Your task to perform on an android device: Google the capital of the United States Image 0: 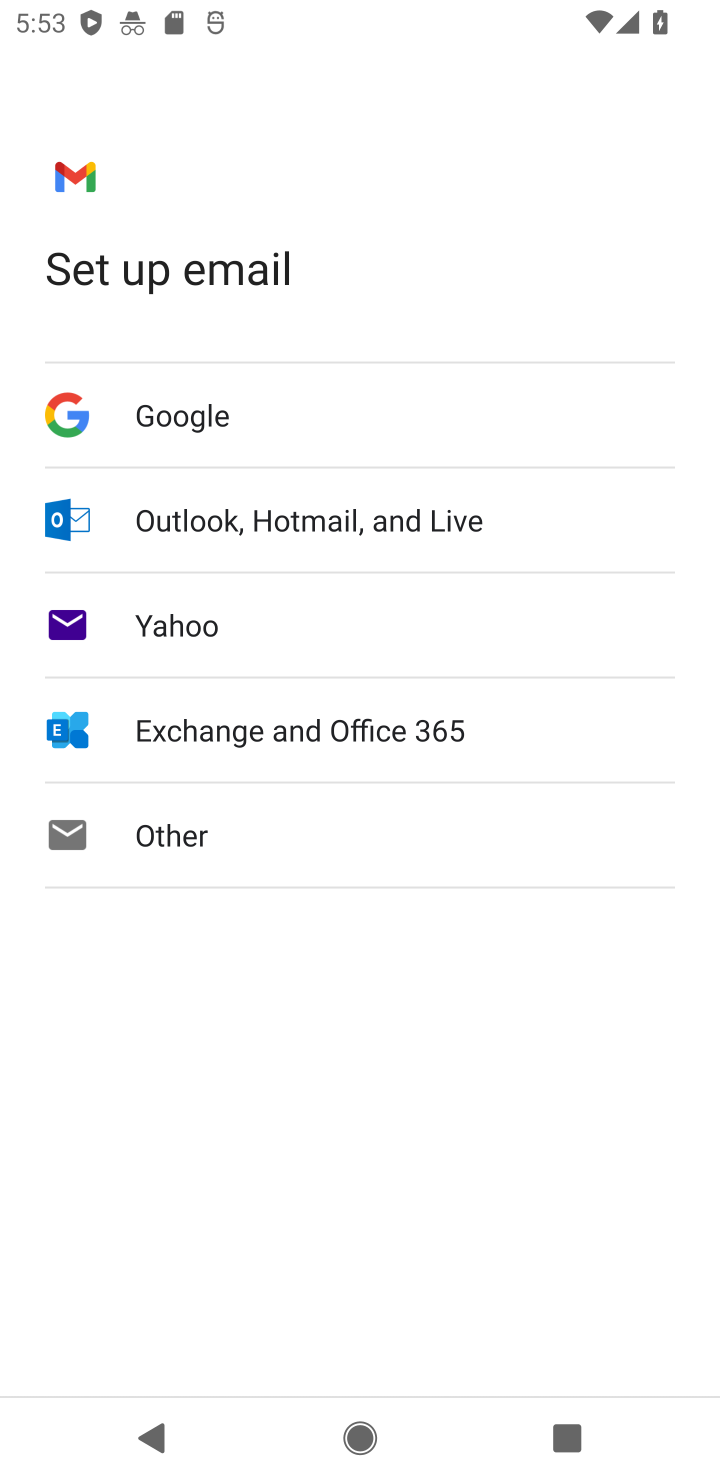
Step 0: press home button
Your task to perform on an android device: Google the capital of the United States Image 1: 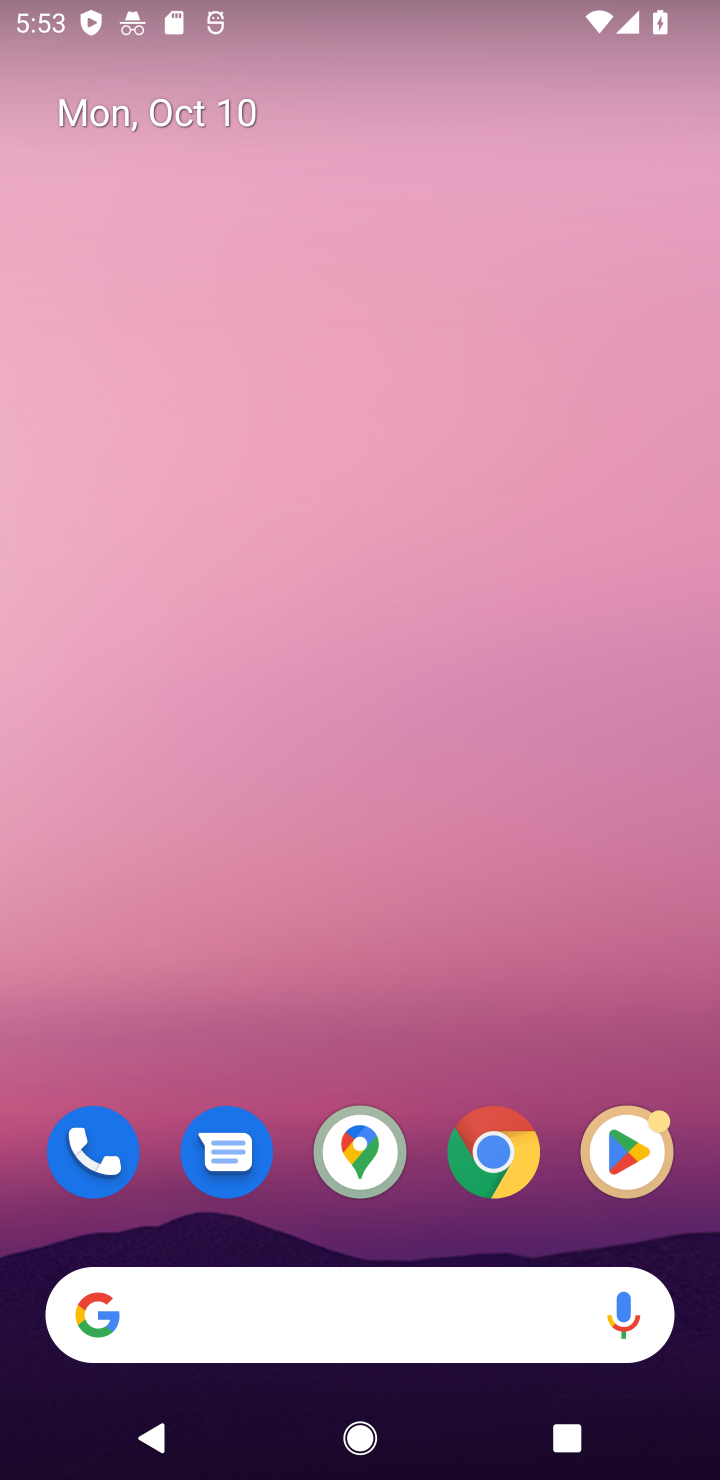
Step 1: click (494, 1163)
Your task to perform on an android device: Google the capital of the United States Image 2: 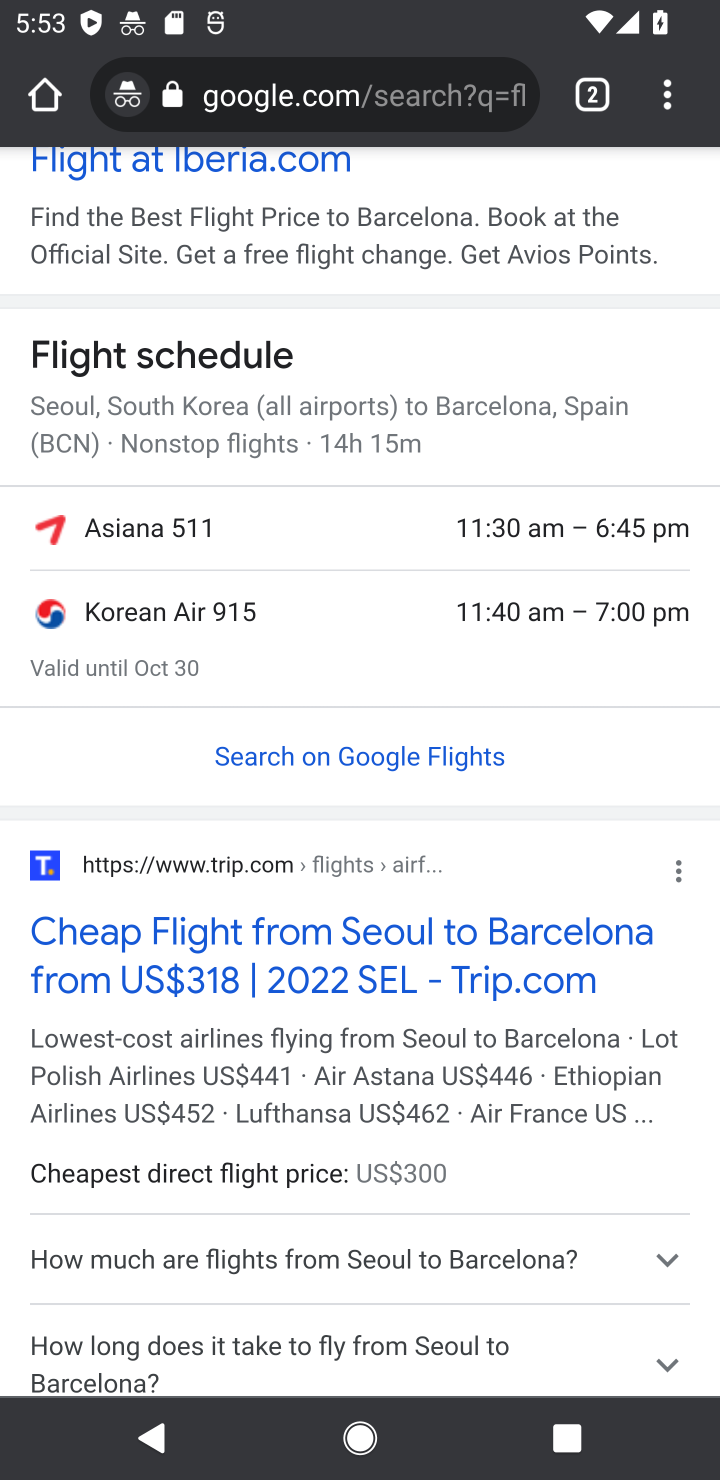
Step 2: click (424, 110)
Your task to perform on an android device: Google the capital of the United States Image 3: 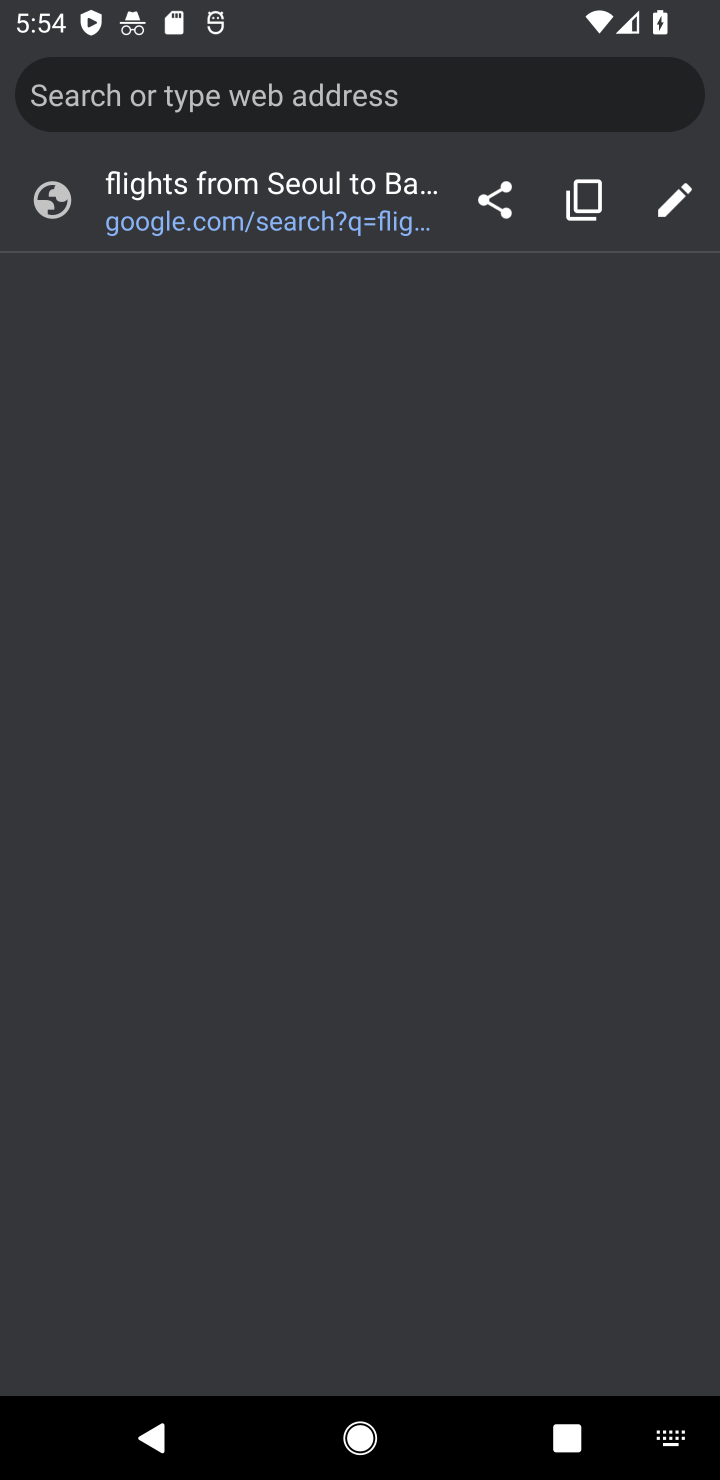
Step 3: type "capital of the United States"
Your task to perform on an android device: Google the capital of the United States Image 4: 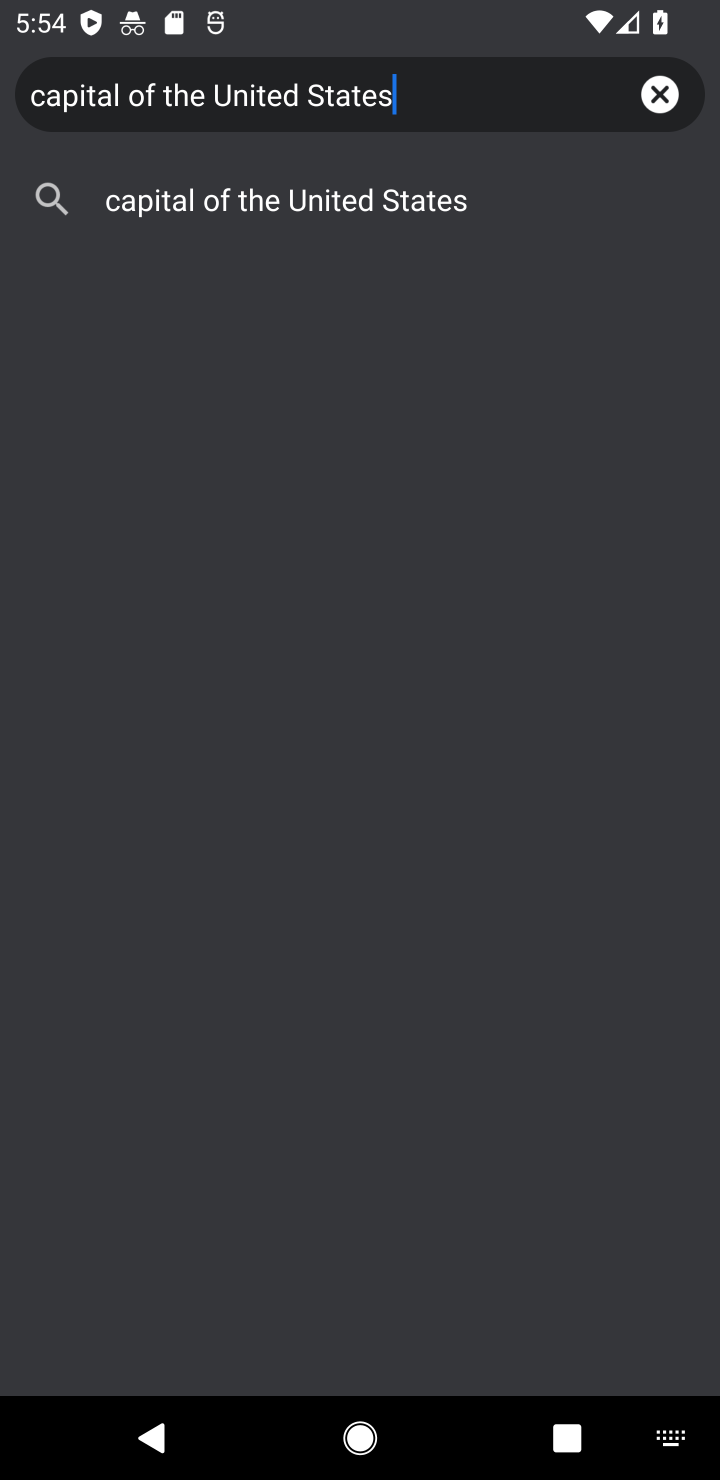
Step 4: click (460, 206)
Your task to perform on an android device: Google the capital of the United States Image 5: 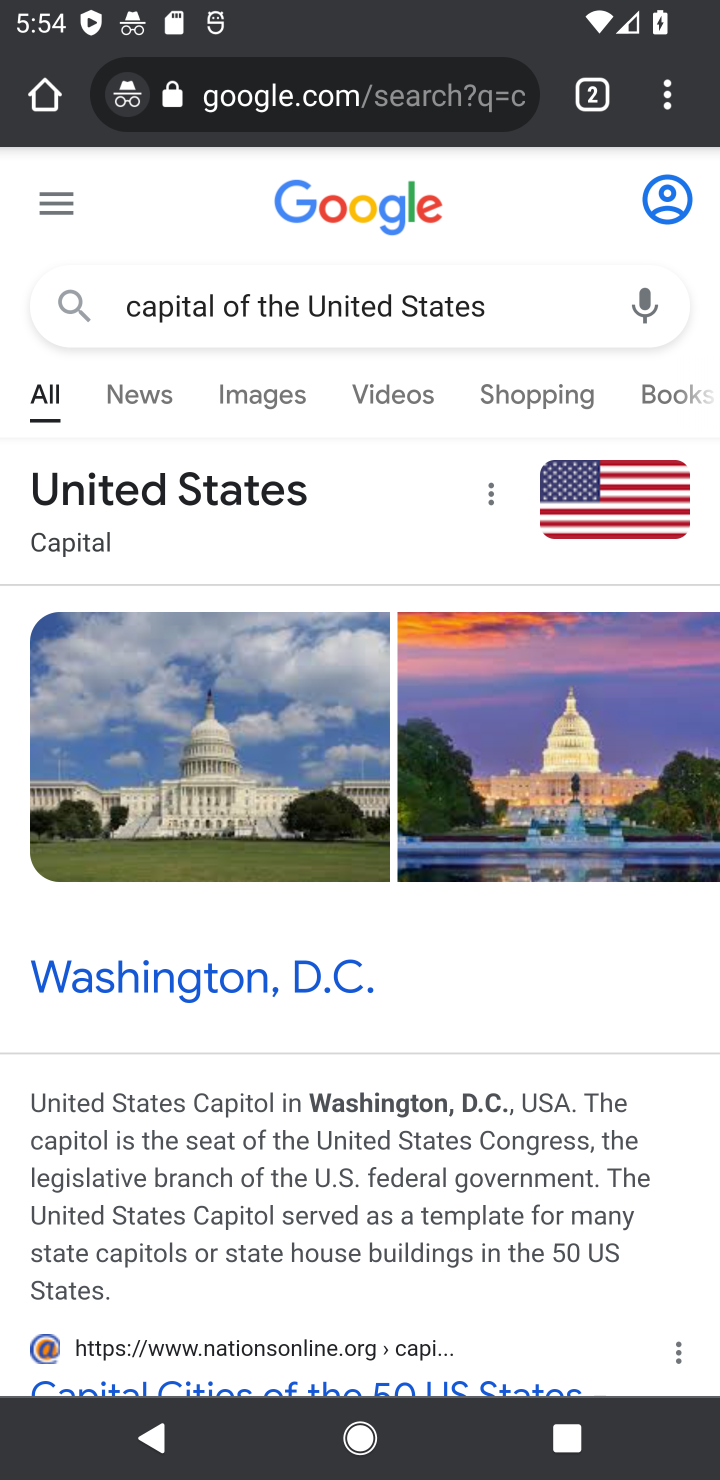
Step 5: task complete